Your task to perform on an android device: Go to Yahoo.com Image 0: 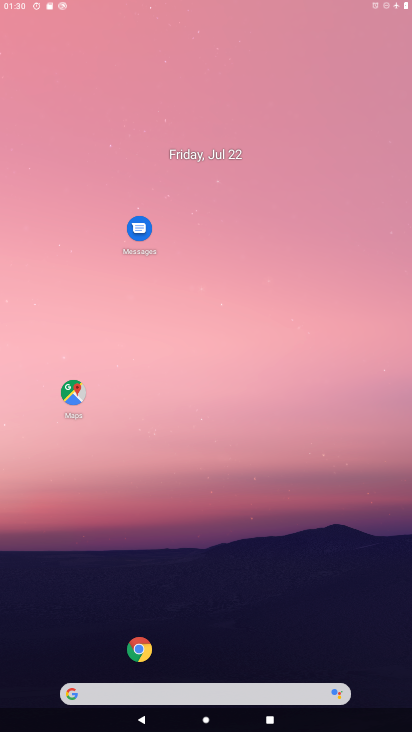
Step 0: click (145, 298)
Your task to perform on an android device: Go to Yahoo.com Image 1: 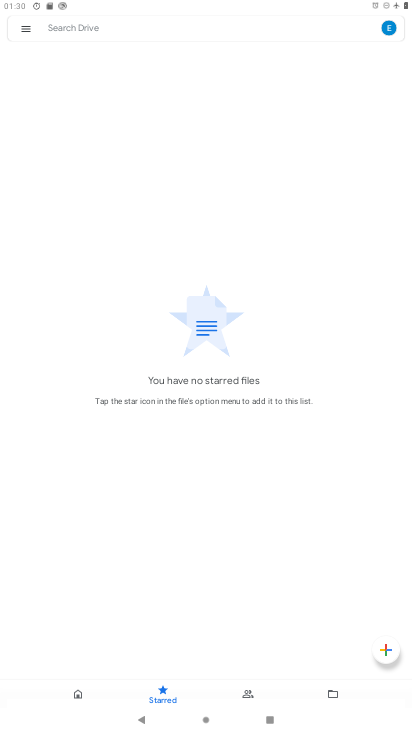
Step 1: press home button
Your task to perform on an android device: Go to Yahoo.com Image 2: 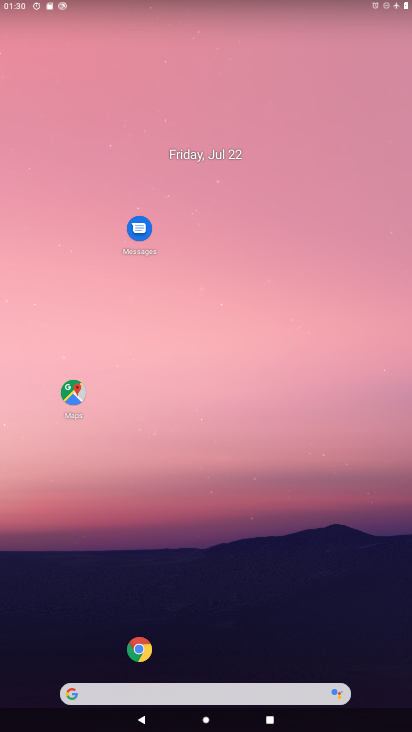
Step 2: click (107, 698)
Your task to perform on an android device: Go to Yahoo.com Image 3: 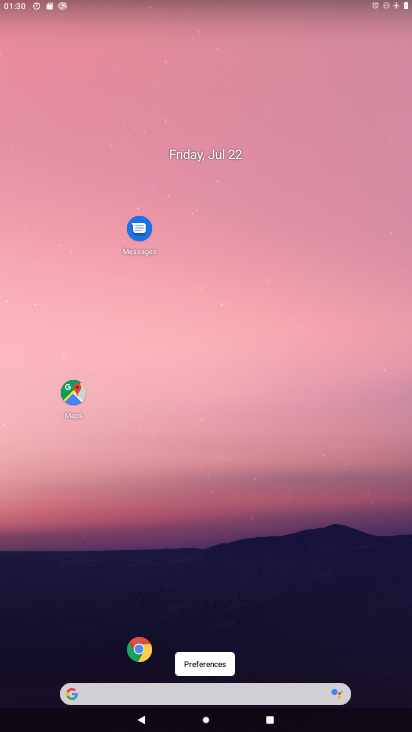
Step 3: click (107, 692)
Your task to perform on an android device: Go to Yahoo.com Image 4: 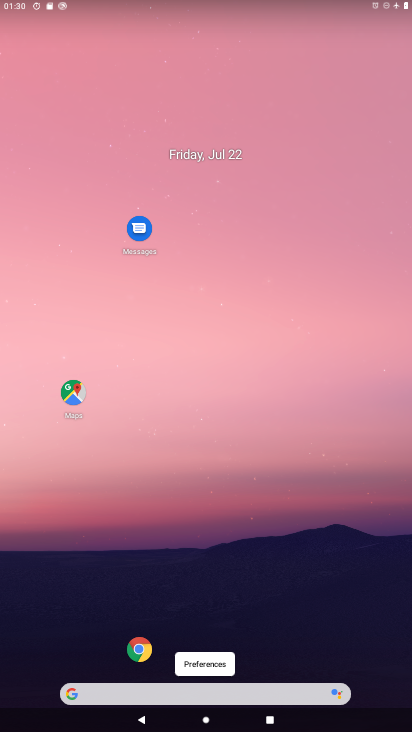
Step 4: click (107, 691)
Your task to perform on an android device: Go to Yahoo.com Image 5: 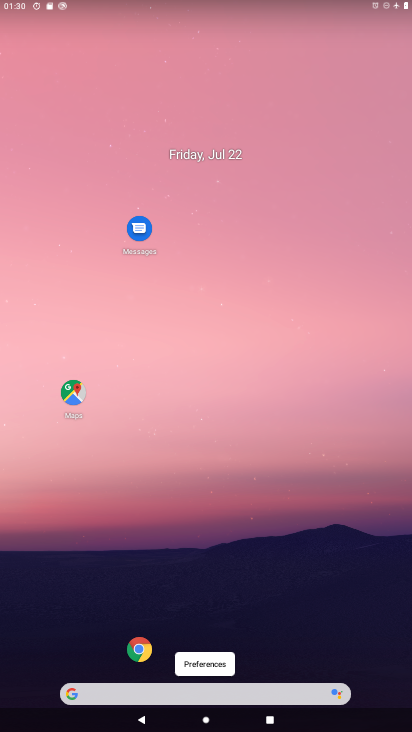
Step 5: task complete